Your task to perform on an android device: change keyboard looks Image 0: 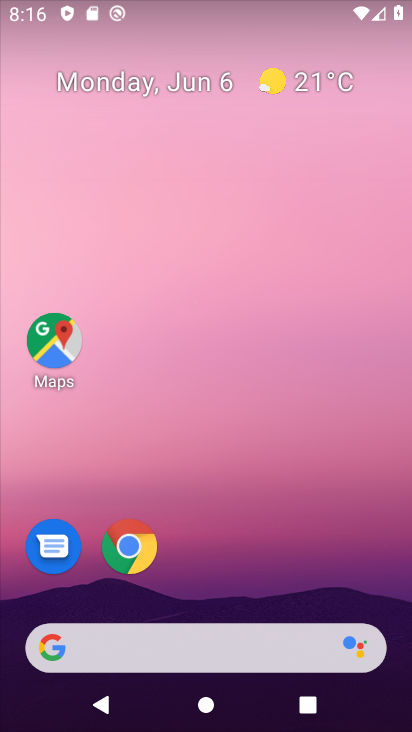
Step 0: task complete